Your task to perform on an android device: turn off improve location accuracy Image 0: 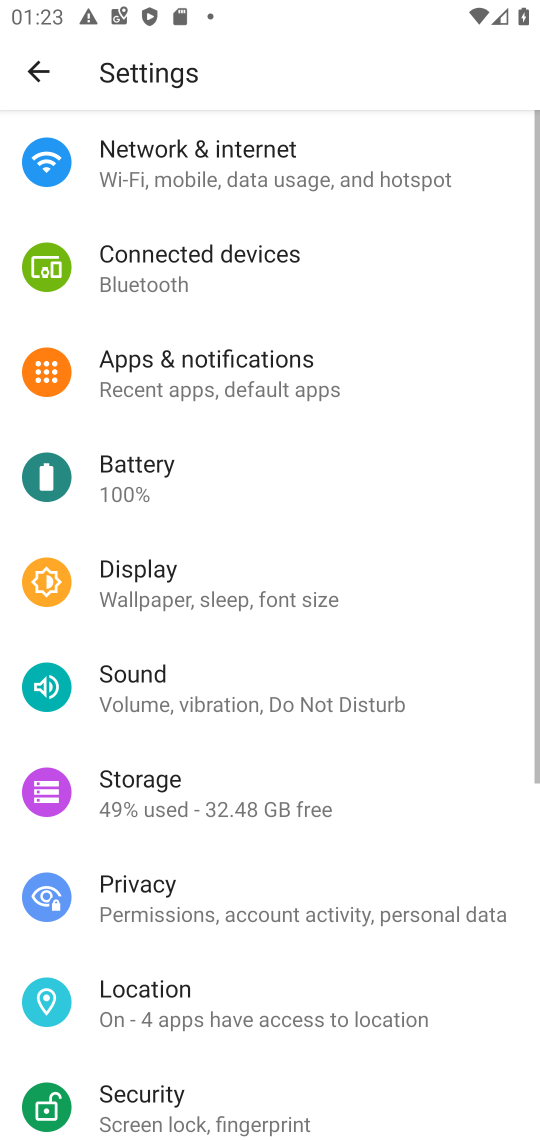
Step 0: press home button
Your task to perform on an android device: turn off improve location accuracy Image 1: 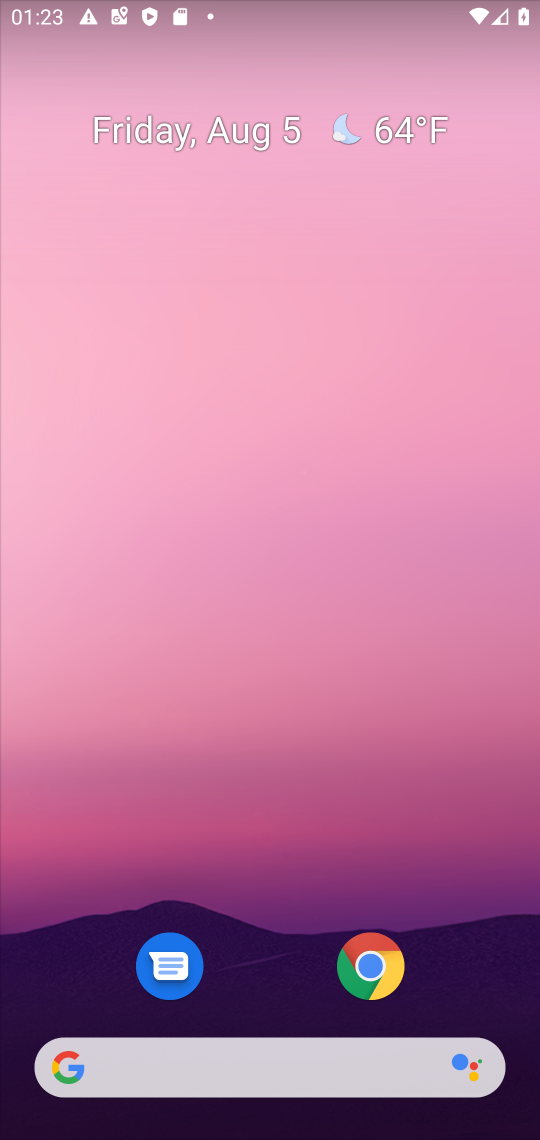
Step 1: drag from (301, 897) to (358, 11)
Your task to perform on an android device: turn off improve location accuracy Image 2: 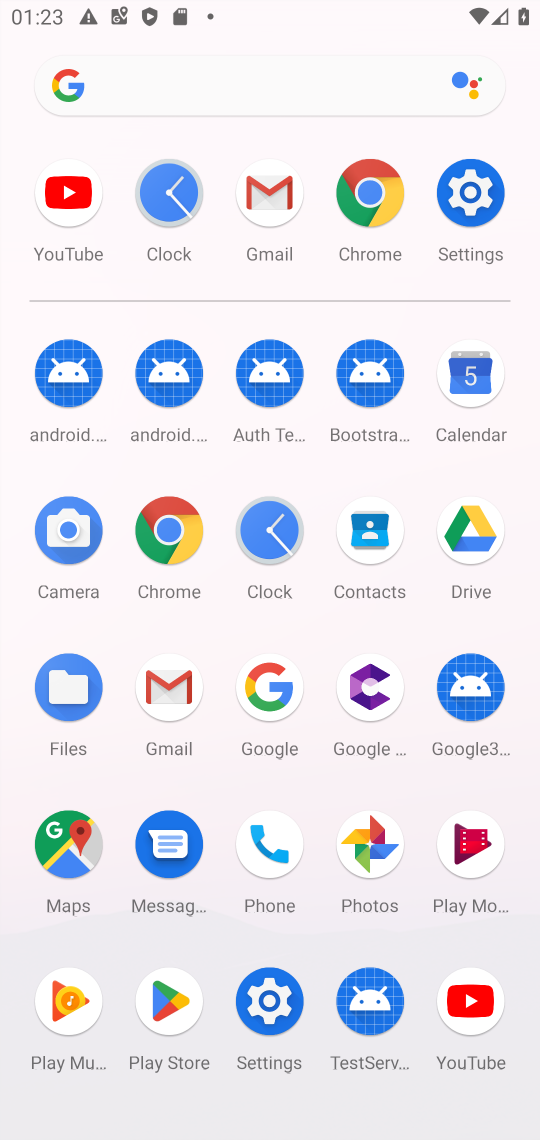
Step 2: click (461, 192)
Your task to perform on an android device: turn off improve location accuracy Image 3: 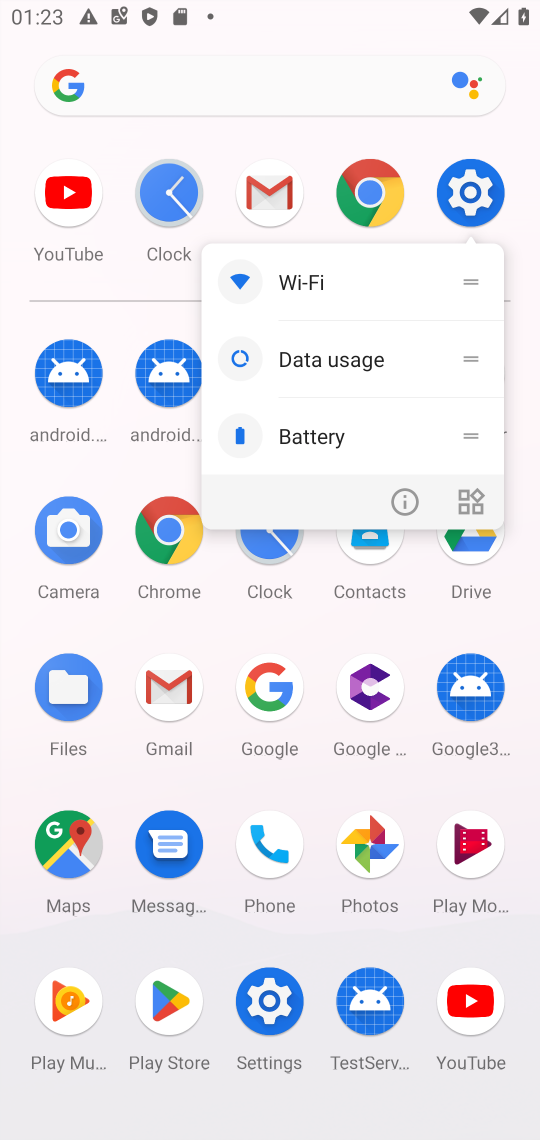
Step 3: click (468, 188)
Your task to perform on an android device: turn off improve location accuracy Image 4: 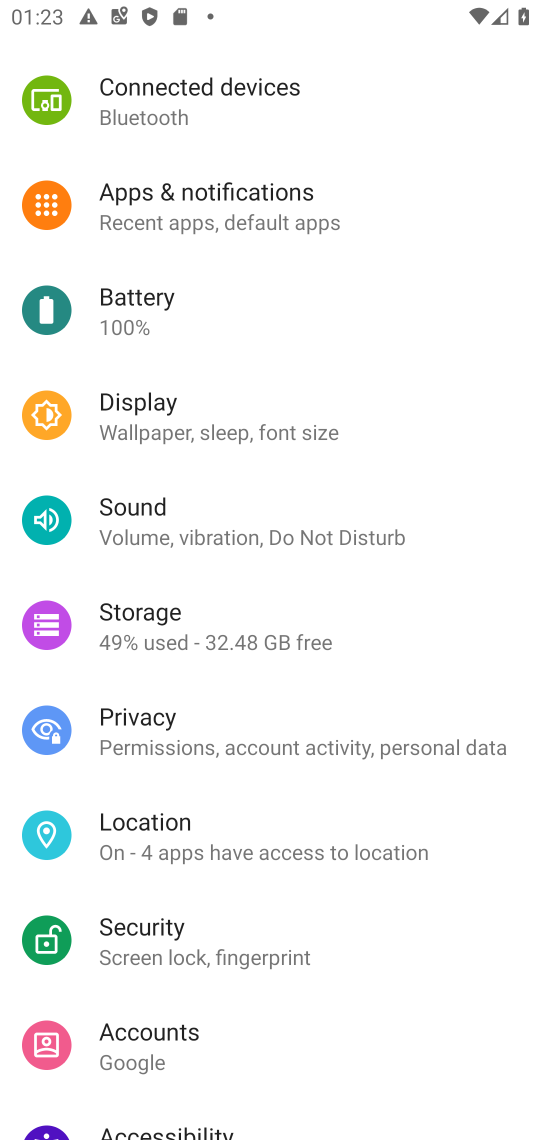
Step 4: click (198, 846)
Your task to perform on an android device: turn off improve location accuracy Image 5: 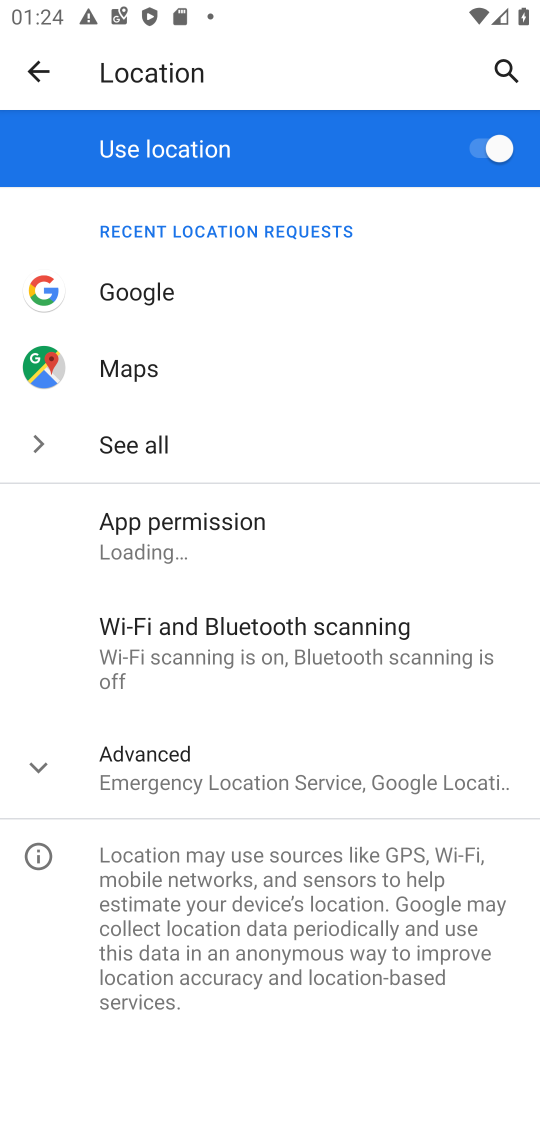
Step 5: click (36, 758)
Your task to perform on an android device: turn off improve location accuracy Image 6: 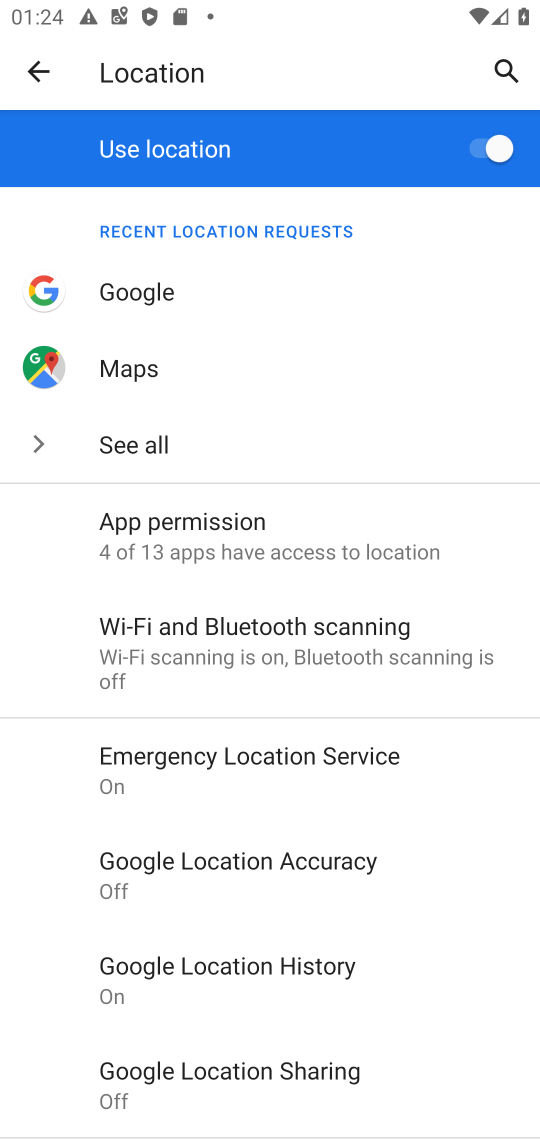
Step 6: task complete